Your task to perform on an android device: Open calendar and show me the first week of next month Image 0: 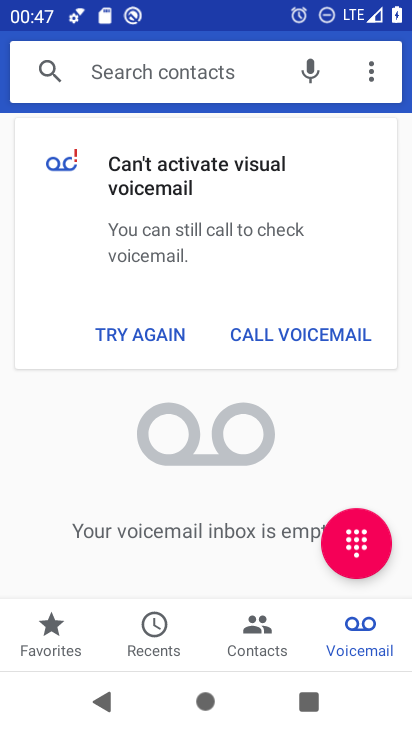
Step 0: press home button
Your task to perform on an android device: Open calendar and show me the first week of next month Image 1: 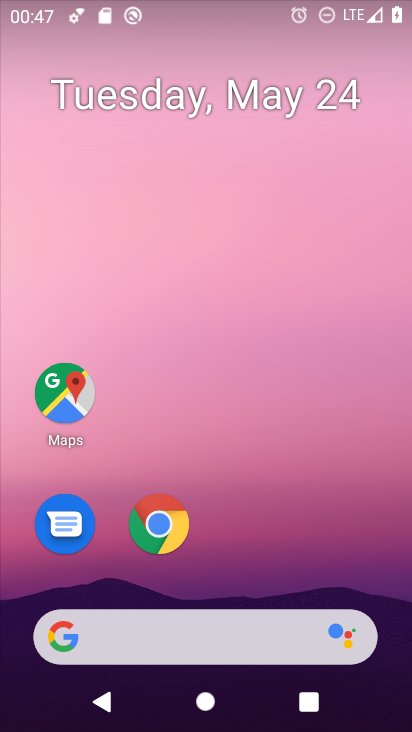
Step 1: drag from (214, 575) to (270, 123)
Your task to perform on an android device: Open calendar and show me the first week of next month Image 2: 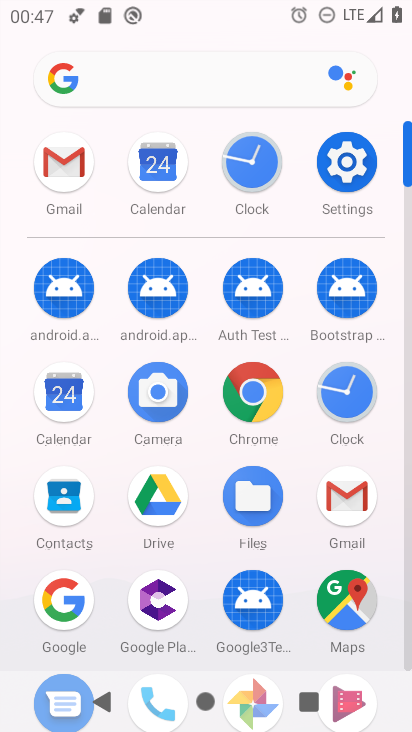
Step 2: click (174, 187)
Your task to perform on an android device: Open calendar and show me the first week of next month Image 3: 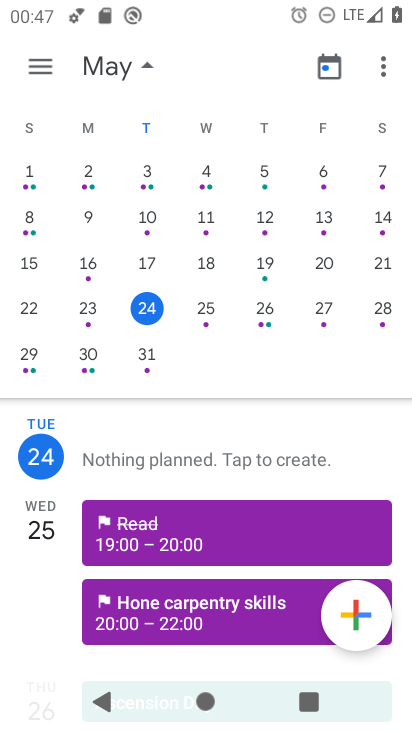
Step 3: drag from (348, 226) to (68, 226)
Your task to perform on an android device: Open calendar and show me the first week of next month Image 4: 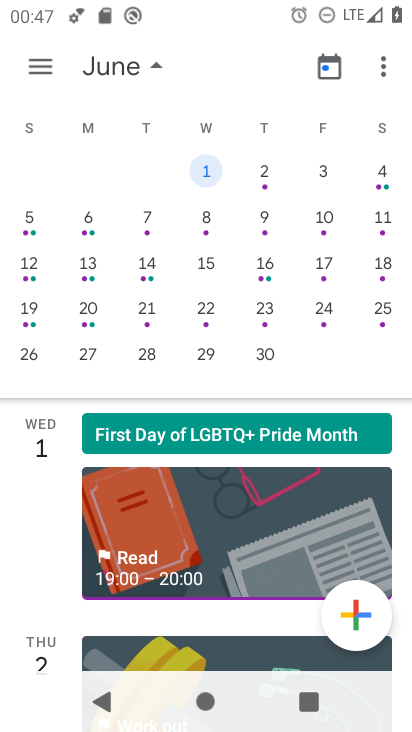
Step 4: click (219, 174)
Your task to perform on an android device: Open calendar and show me the first week of next month Image 5: 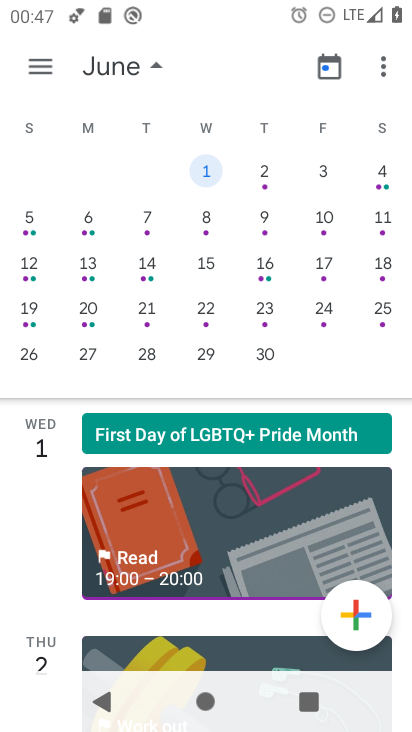
Step 5: click (219, 174)
Your task to perform on an android device: Open calendar and show me the first week of next month Image 6: 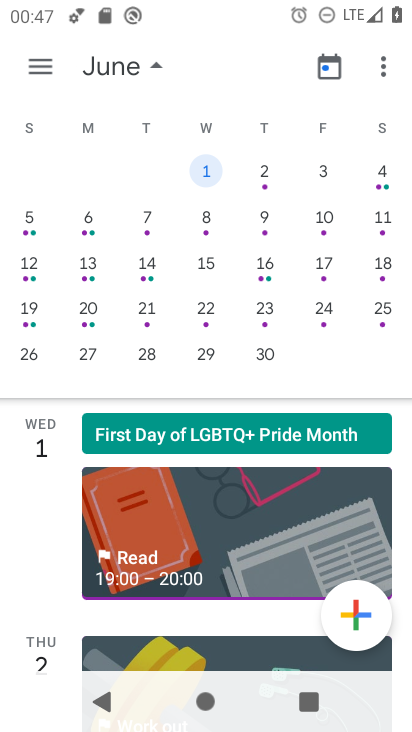
Step 6: task complete